Your task to perform on an android device: see sites visited before in the chrome app Image 0: 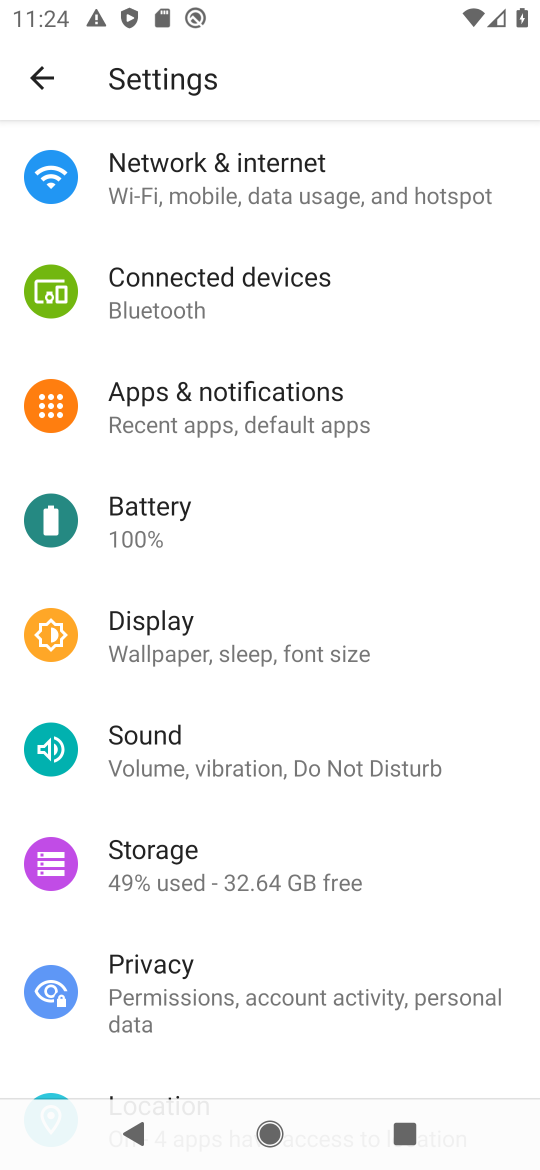
Step 0: press home button
Your task to perform on an android device: see sites visited before in the chrome app Image 1: 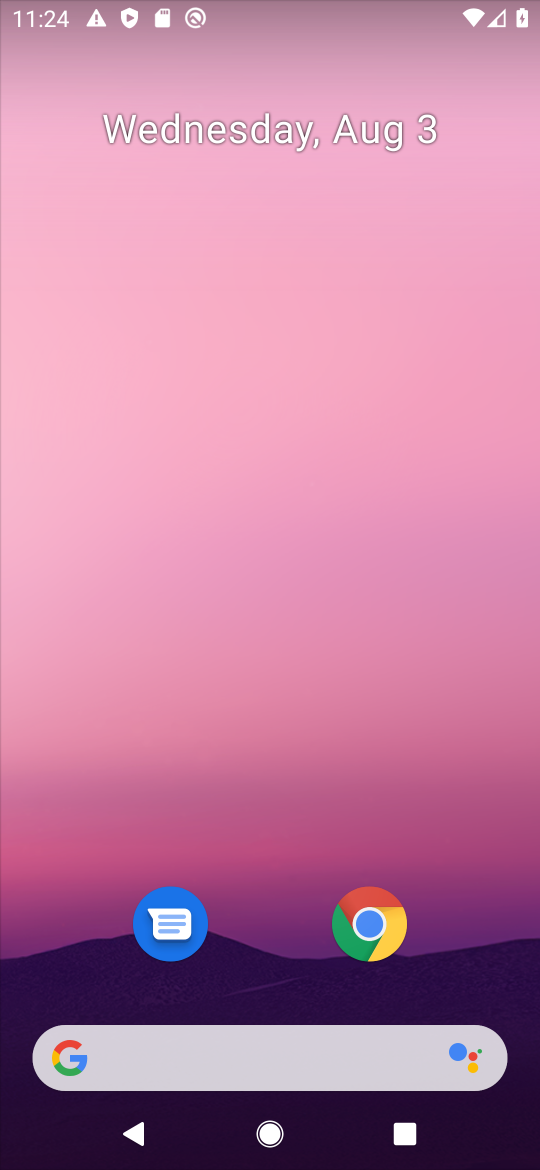
Step 1: click (366, 939)
Your task to perform on an android device: see sites visited before in the chrome app Image 2: 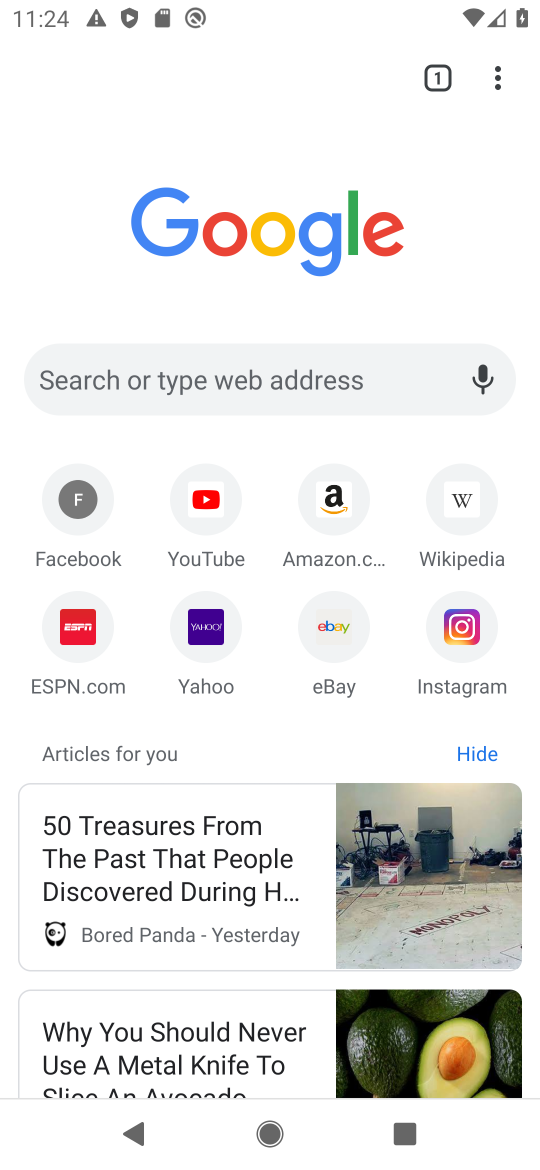
Step 2: click (497, 87)
Your task to perform on an android device: see sites visited before in the chrome app Image 3: 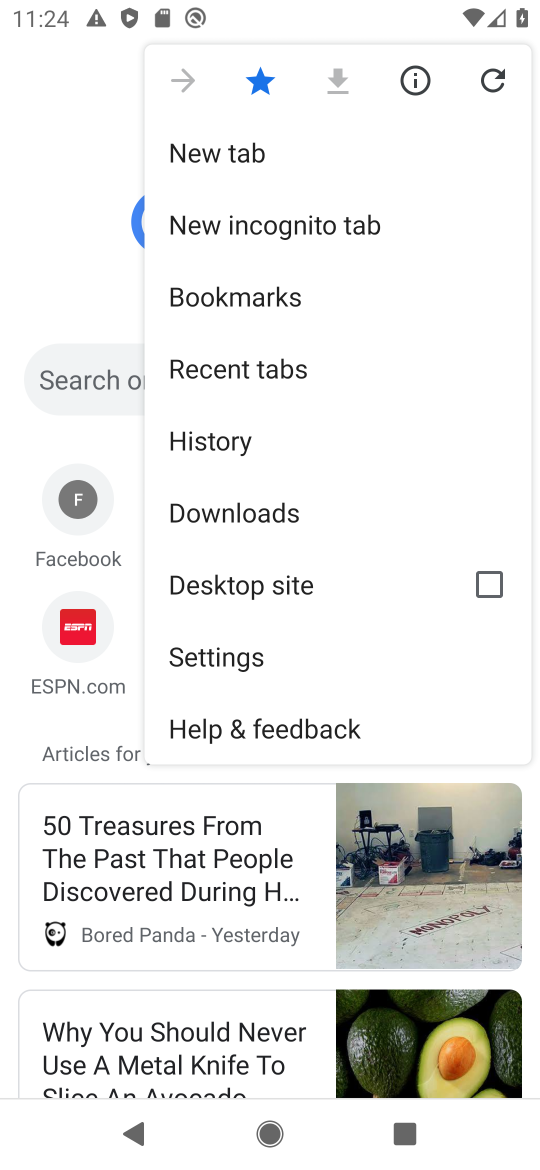
Step 3: click (196, 668)
Your task to perform on an android device: see sites visited before in the chrome app Image 4: 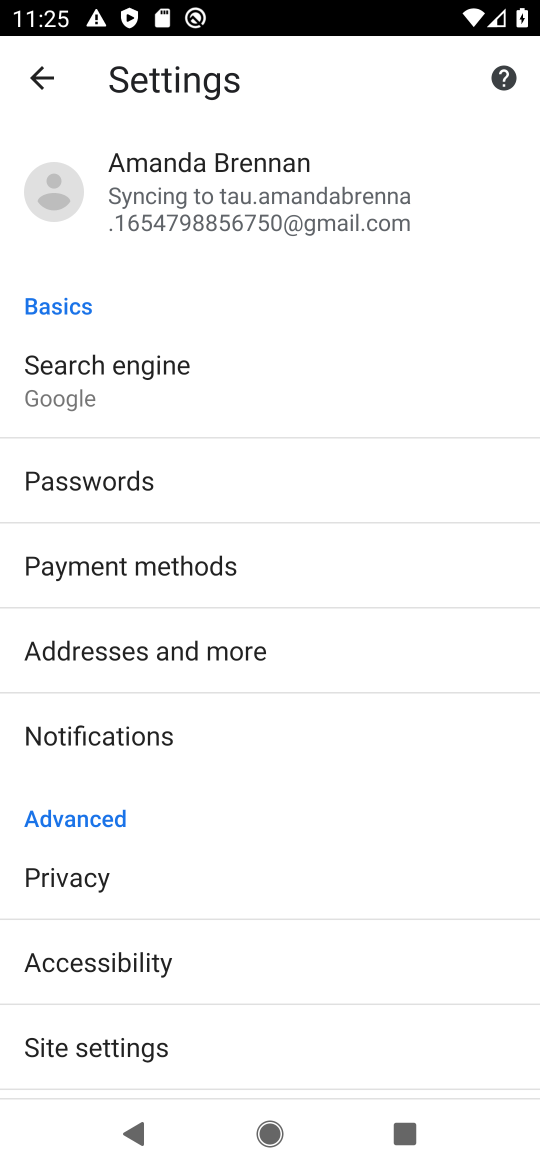
Step 4: click (113, 1032)
Your task to perform on an android device: see sites visited before in the chrome app Image 5: 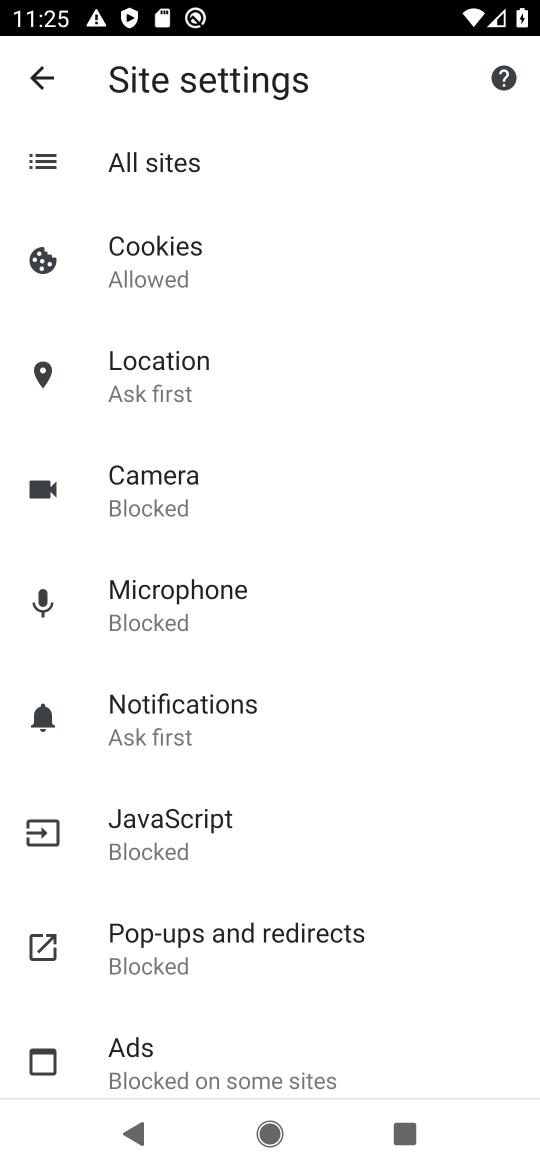
Step 5: task complete